Your task to perform on an android device: Find coffee shops on Maps Image 0: 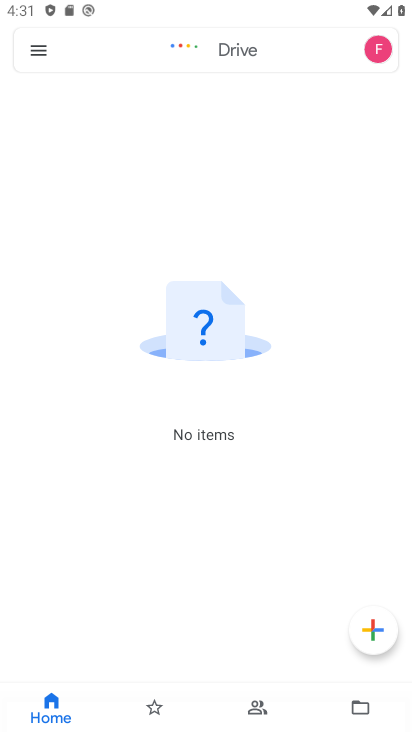
Step 0: press home button
Your task to perform on an android device: Find coffee shops on Maps Image 1: 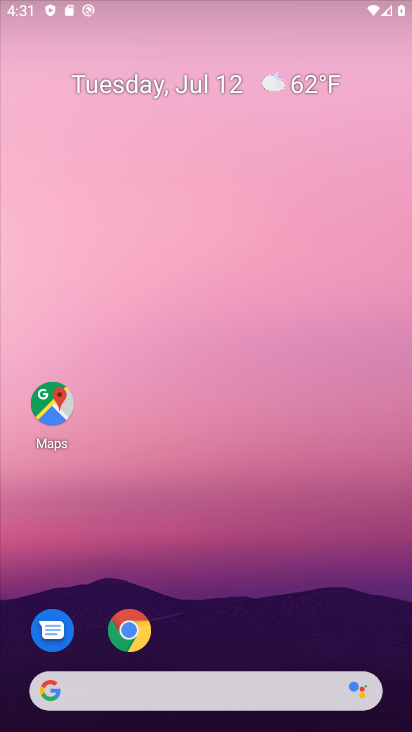
Step 1: drag from (233, 536) to (320, 98)
Your task to perform on an android device: Find coffee shops on Maps Image 2: 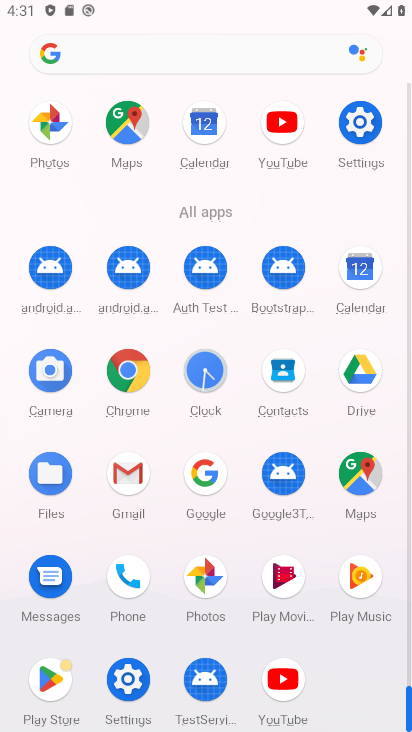
Step 2: click (370, 466)
Your task to perform on an android device: Find coffee shops on Maps Image 3: 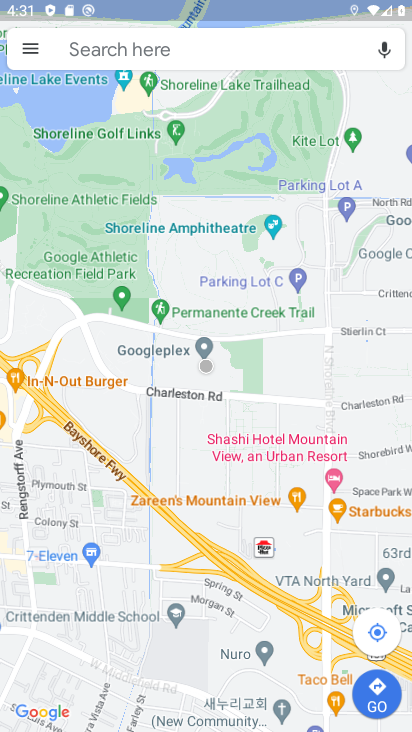
Step 3: click (181, 50)
Your task to perform on an android device: Find coffee shops on Maps Image 4: 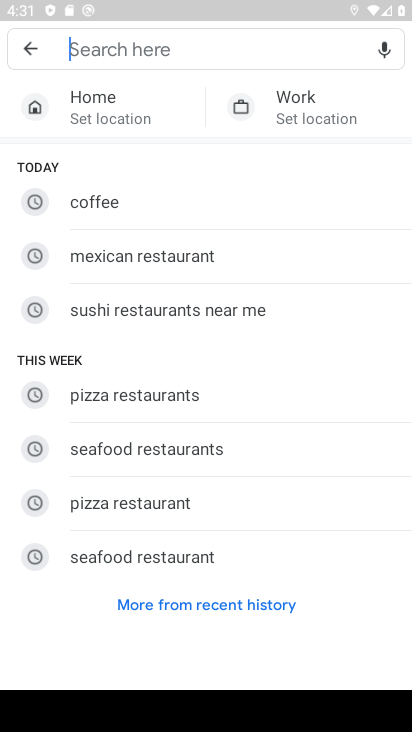
Step 4: type "Coffee shops"
Your task to perform on an android device: Find coffee shops on Maps Image 5: 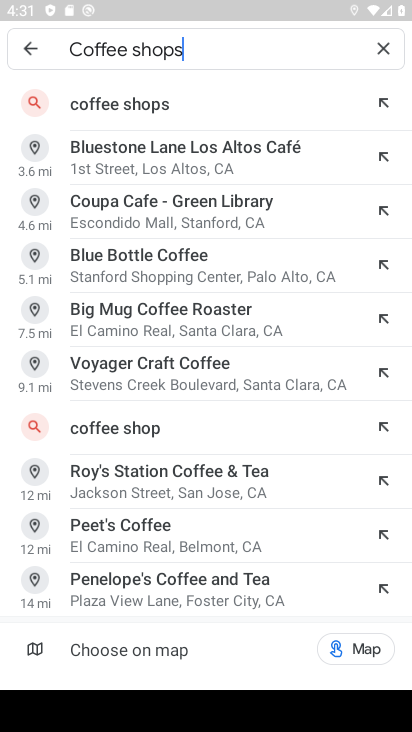
Step 5: click (148, 118)
Your task to perform on an android device: Find coffee shops on Maps Image 6: 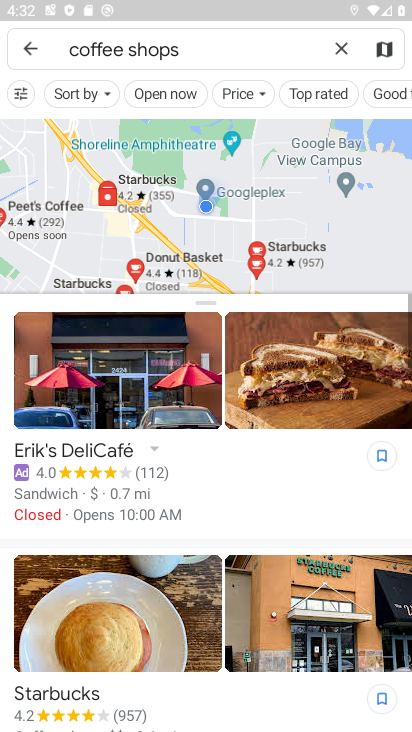
Step 6: task complete